Your task to perform on an android device: turn on notifications settings in the gmail app Image 0: 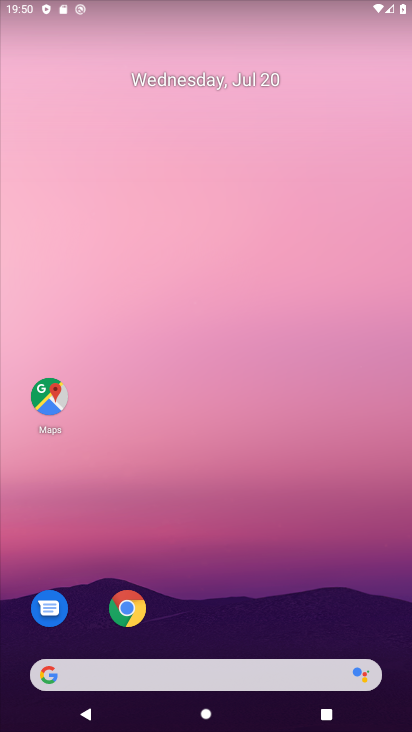
Step 0: drag from (274, 452) to (247, 92)
Your task to perform on an android device: turn on notifications settings in the gmail app Image 1: 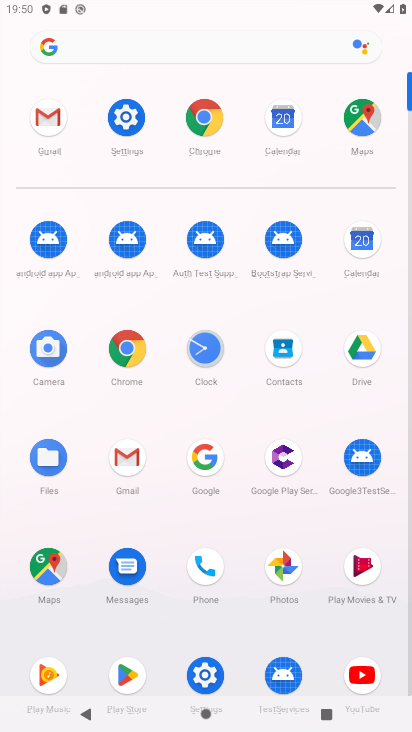
Step 1: click (37, 112)
Your task to perform on an android device: turn on notifications settings in the gmail app Image 2: 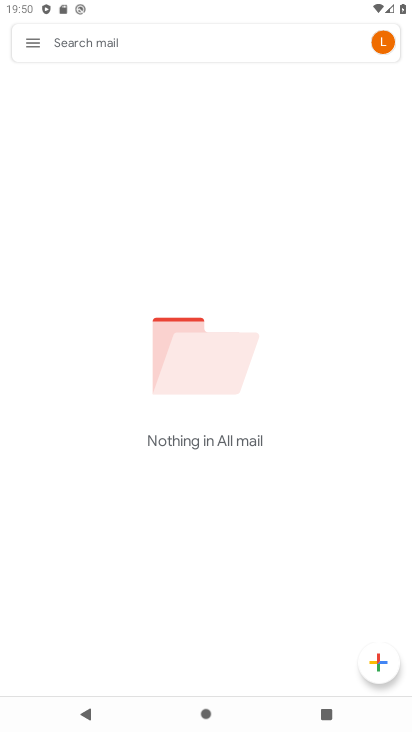
Step 2: click (33, 35)
Your task to perform on an android device: turn on notifications settings in the gmail app Image 3: 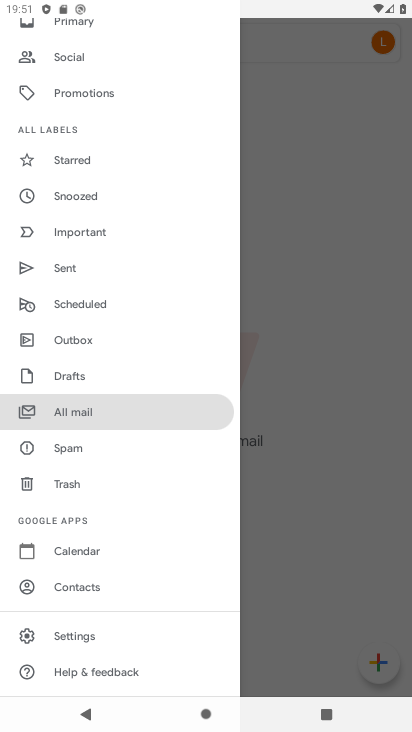
Step 3: click (72, 629)
Your task to perform on an android device: turn on notifications settings in the gmail app Image 4: 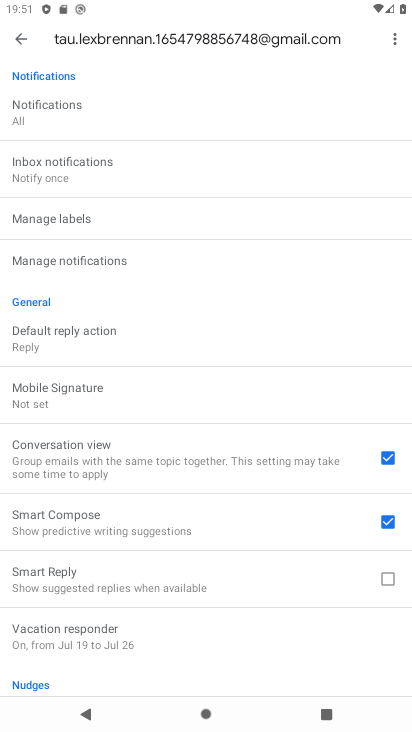
Step 4: click (120, 267)
Your task to perform on an android device: turn on notifications settings in the gmail app Image 5: 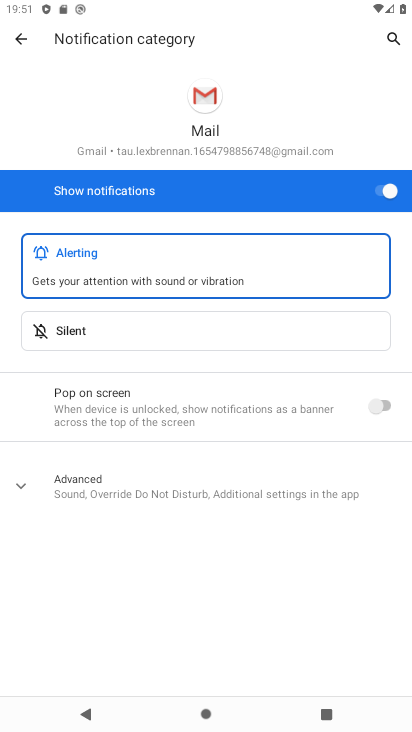
Step 5: click (381, 190)
Your task to perform on an android device: turn on notifications settings in the gmail app Image 6: 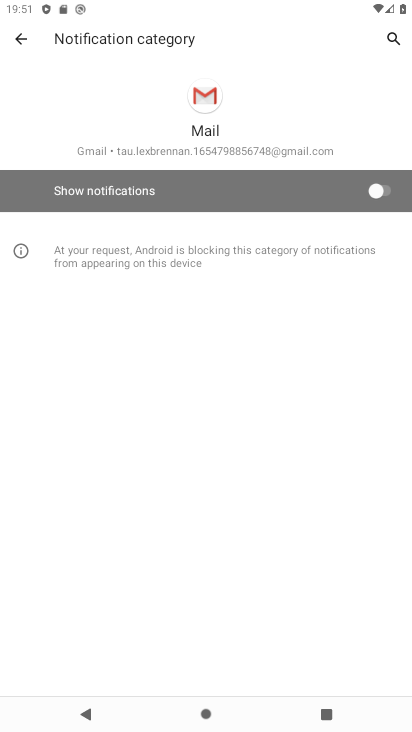
Step 6: task complete